Your task to perform on an android device: Open calendar and show me the fourth week of next month Image 0: 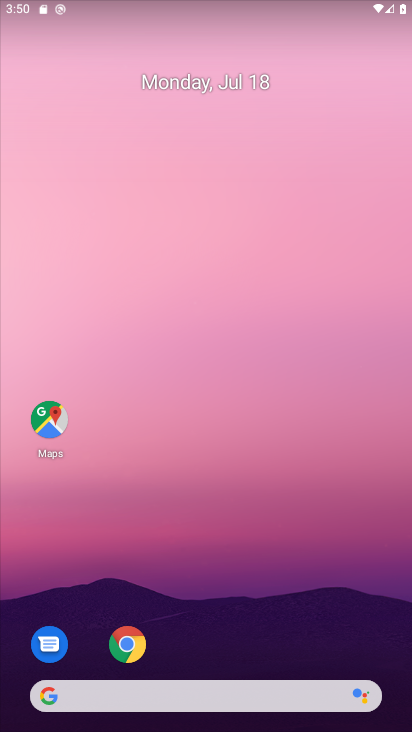
Step 0: click (132, 653)
Your task to perform on an android device: Open calendar and show me the fourth week of next month Image 1: 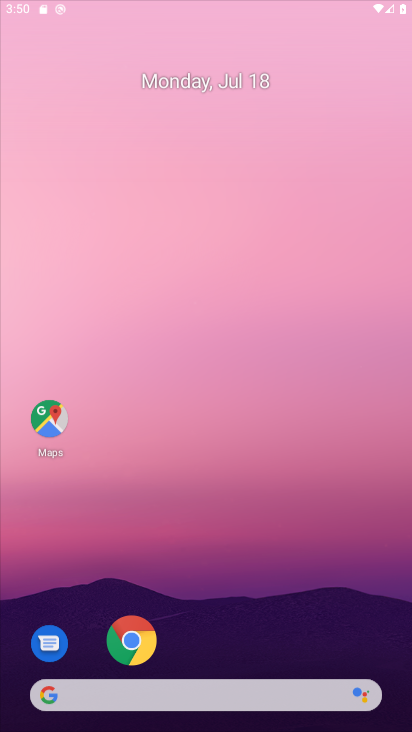
Step 1: press home button
Your task to perform on an android device: Open calendar and show me the fourth week of next month Image 2: 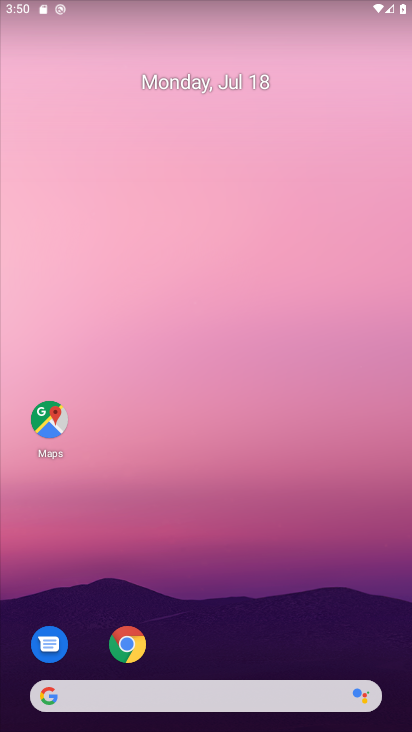
Step 2: drag from (261, 633) to (333, 2)
Your task to perform on an android device: Open calendar and show me the fourth week of next month Image 3: 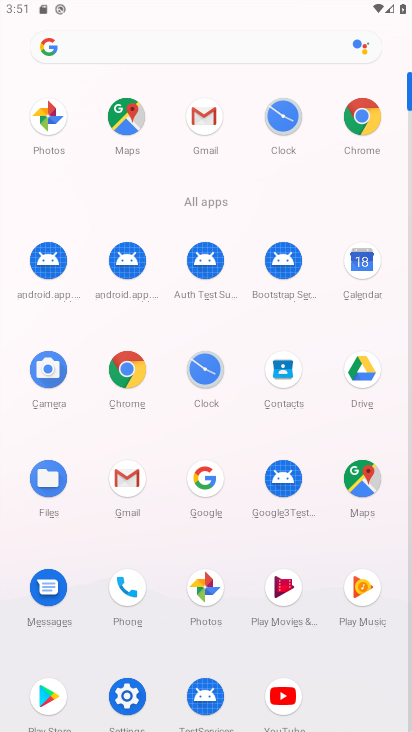
Step 3: click (364, 283)
Your task to perform on an android device: Open calendar and show me the fourth week of next month Image 4: 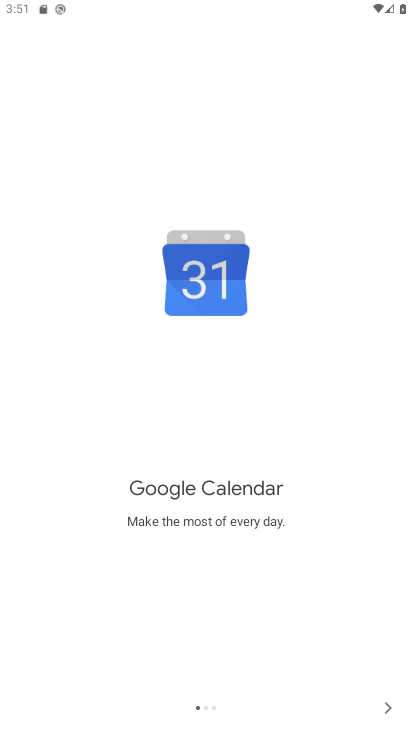
Step 4: click (386, 717)
Your task to perform on an android device: Open calendar and show me the fourth week of next month Image 5: 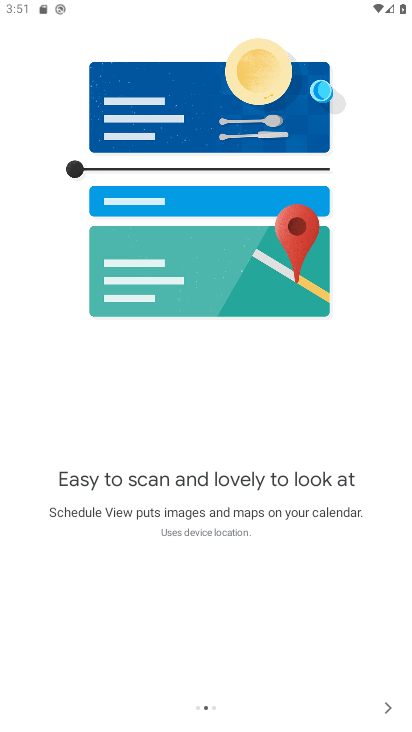
Step 5: click (386, 717)
Your task to perform on an android device: Open calendar and show me the fourth week of next month Image 6: 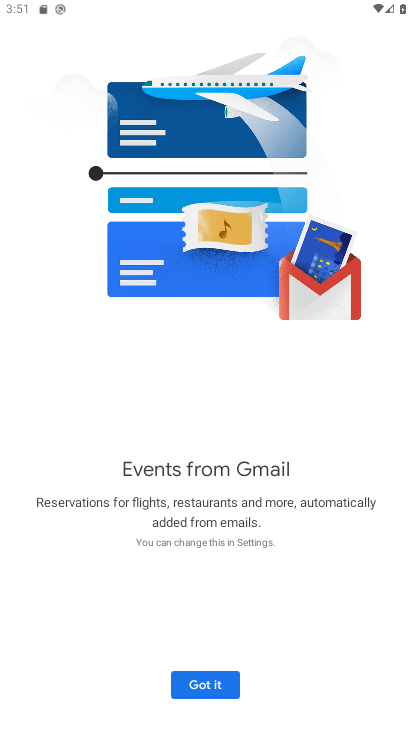
Step 6: click (241, 689)
Your task to perform on an android device: Open calendar and show me the fourth week of next month Image 7: 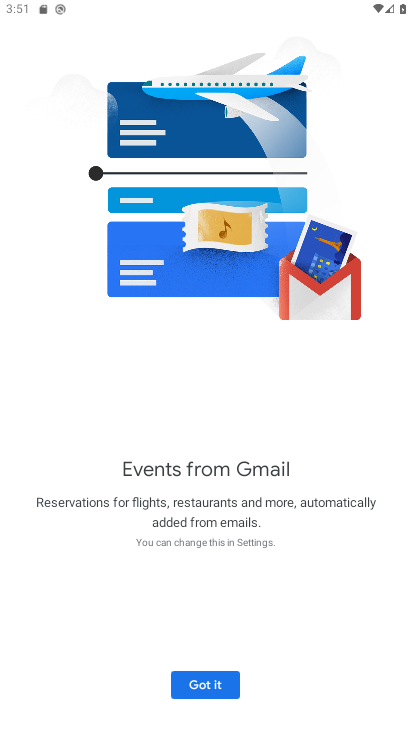
Step 7: click (229, 685)
Your task to perform on an android device: Open calendar and show me the fourth week of next month Image 8: 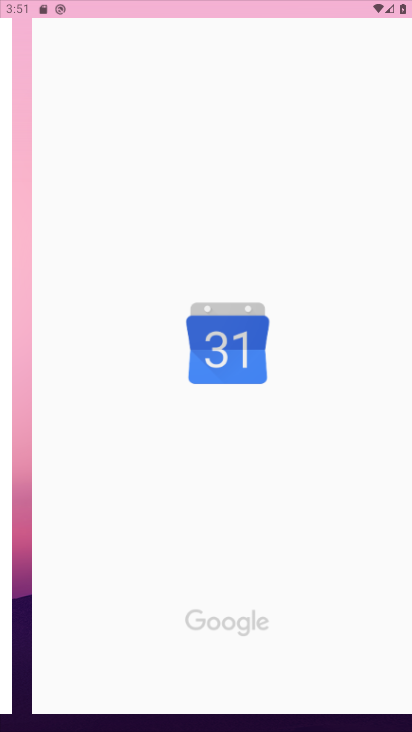
Step 8: click (229, 685)
Your task to perform on an android device: Open calendar and show me the fourth week of next month Image 9: 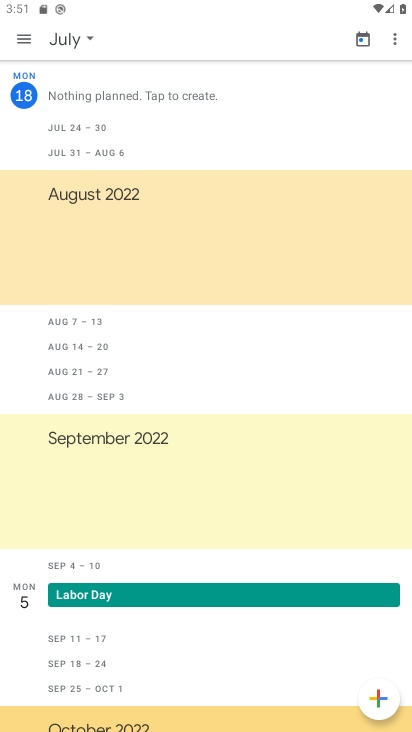
Step 9: task complete